Your task to perform on an android device: delete browsing data in the chrome app Image 0: 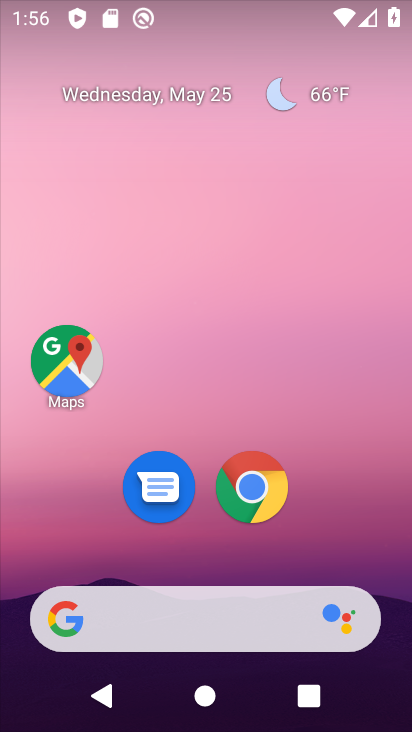
Step 0: click (250, 499)
Your task to perform on an android device: delete browsing data in the chrome app Image 1: 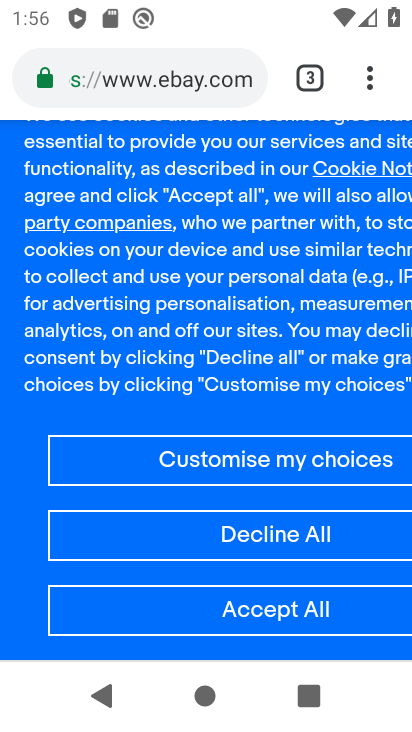
Step 1: click (374, 80)
Your task to perform on an android device: delete browsing data in the chrome app Image 2: 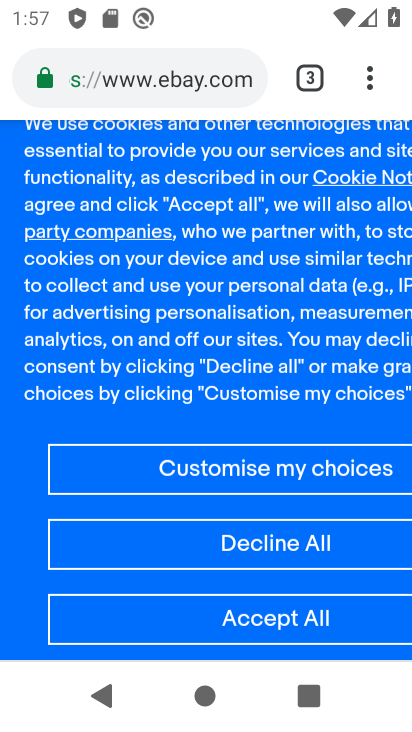
Step 2: click (373, 84)
Your task to perform on an android device: delete browsing data in the chrome app Image 3: 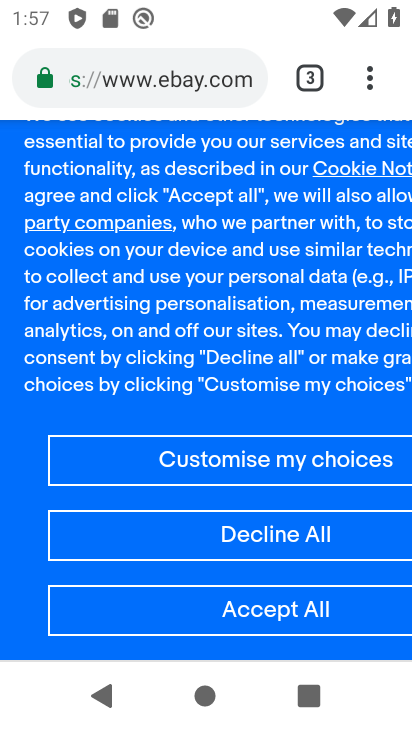
Step 3: click (367, 82)
Your task to perform on an android device: delete browsing data in the chrome app Image 4: 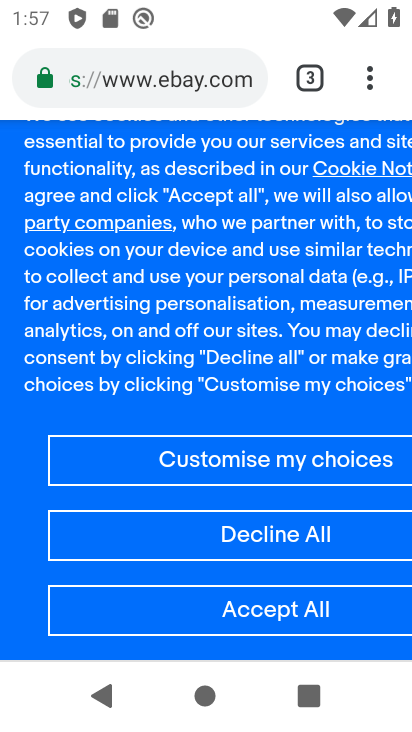
Step 4: click (367, 82)
Your task to perform on an android device: delete browsing data in the chrome app Image 5: 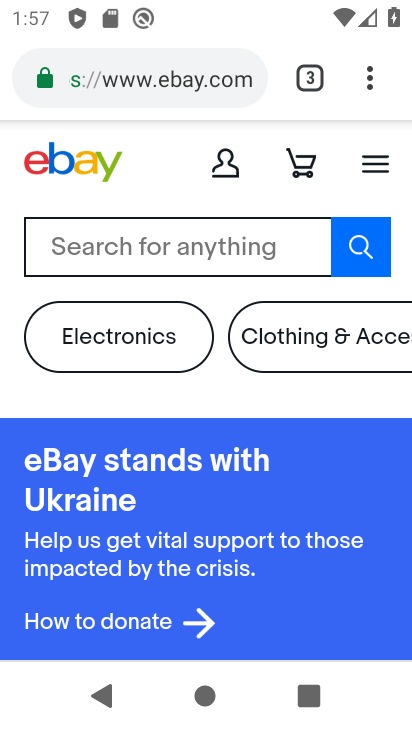
Step 5: click (369, 76)
Your task to perform on an android device: delete browsing data in the chrome app Image 6: 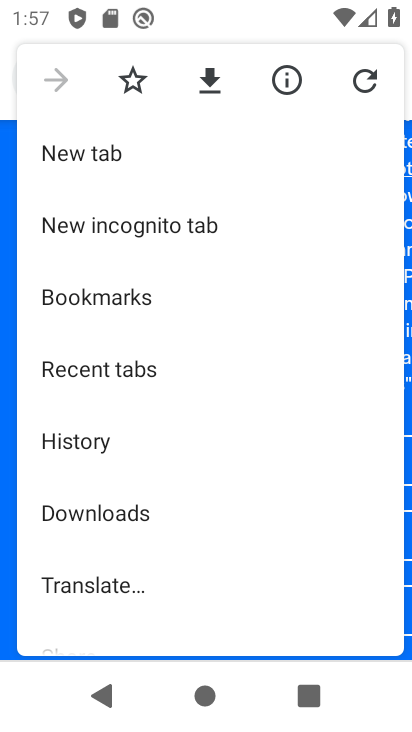
Step 6: drag from (177, 605) to (173, 160)
Your task to perform on an android device: delete browsing data in the chrome app Image 7: 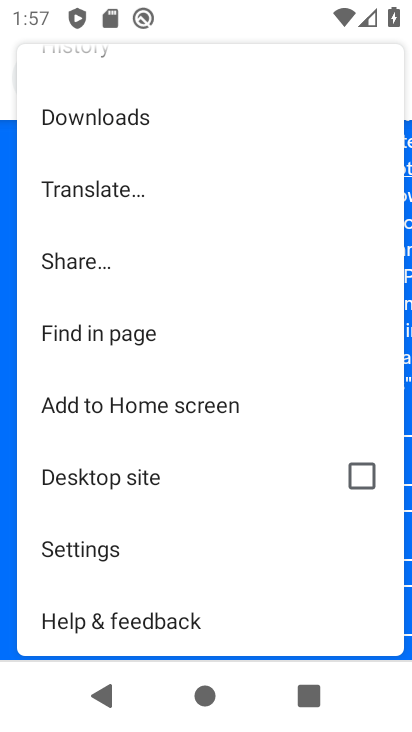
Step 7: drag from (180, 181) to (77, 530)
Your task to perform on an android device: delete browsing data in the chrome app Image 8: 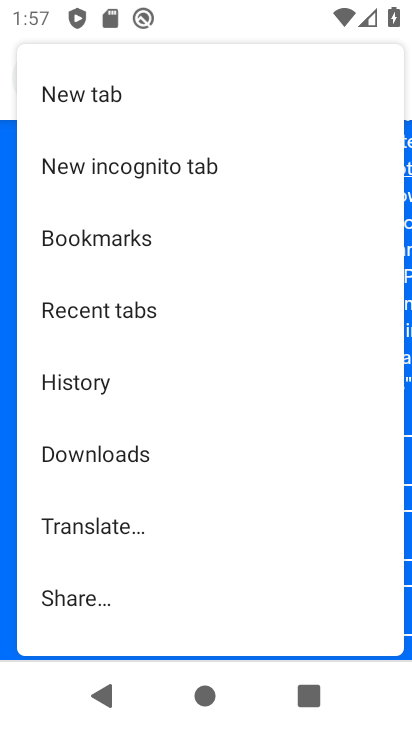
Step 8: click (103, 390)
Your task to perform on an android device: delete browsing data in the chrome app Image 9: 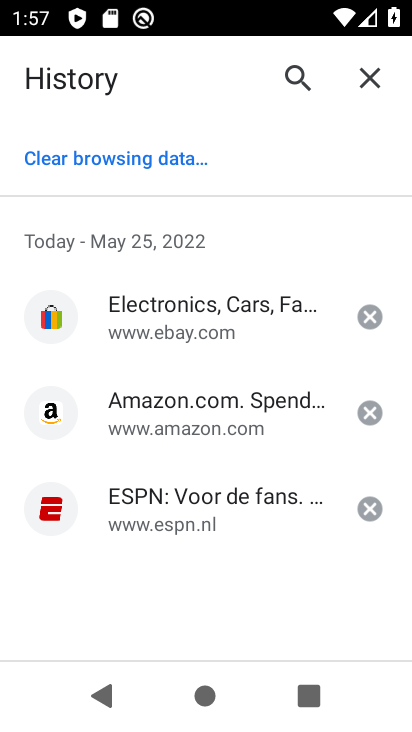
Step 9: click (138, 157)
Your task to perform on an android device: delete browsing data in the chrome app Image 10: 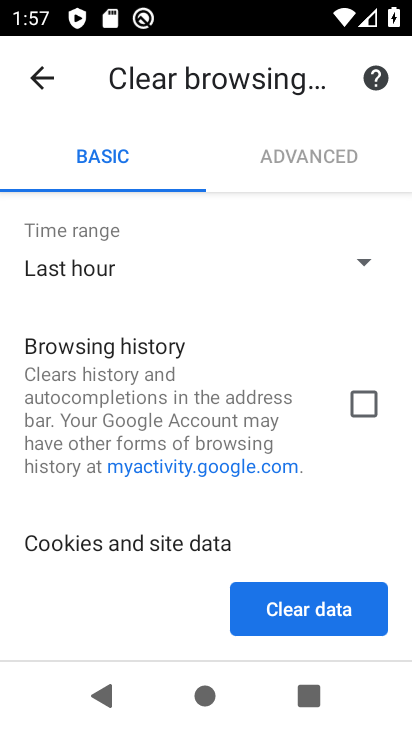
Step 10: click (377, 401)
Your task to perform on an android device: delete browsing data in the chrome app Image 11: 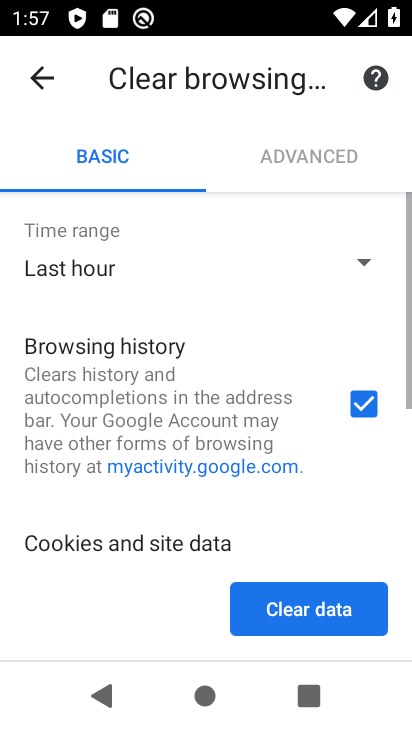
Step 11: drag from (182, 503) to (169, 239)
Your task to perform on an android device: delete browsing data in the chrome app Image 12: 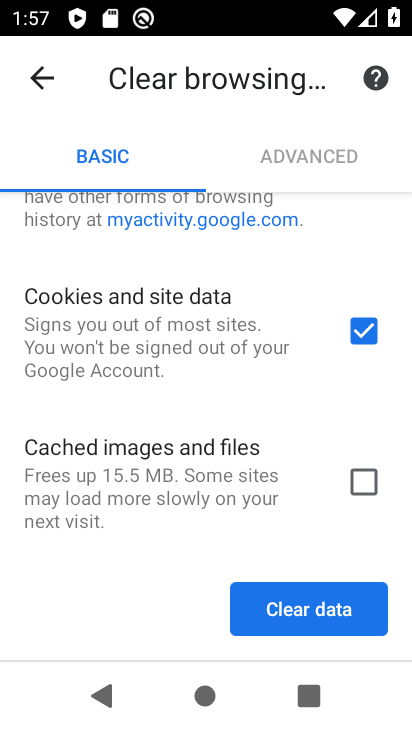
Step 12: click (355, 484)
Your task to perform on an android device: delete browsing data in the chrome app Image 13: 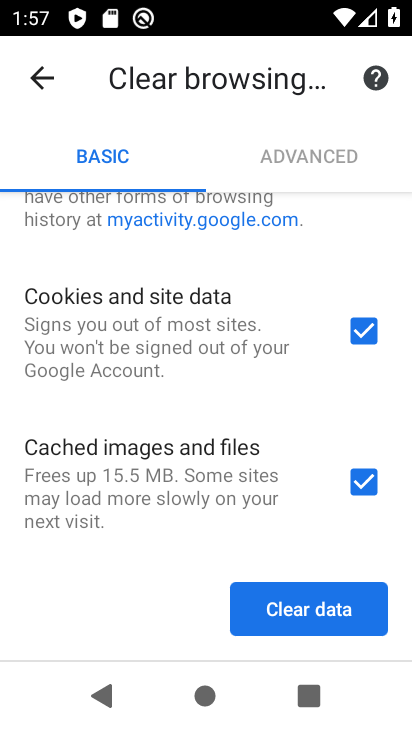
Step 13: click (316, 610)
Your task to perform on an android device: delete browsing data in the chrome app Image 14: 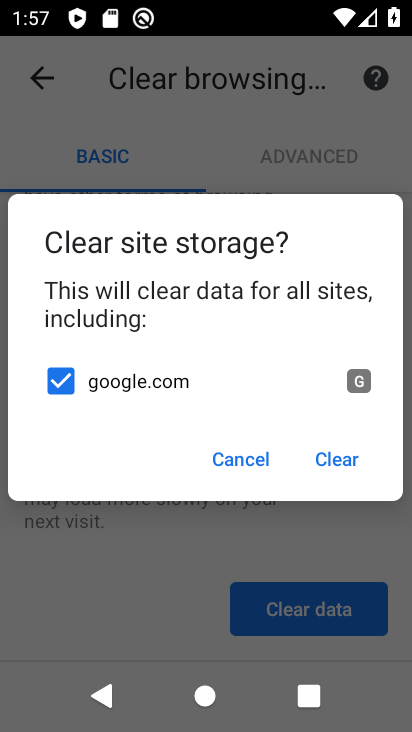
Step 14: click (329, 453)
Your task to perform on an android device: delete browsing data in the chrome app Image 15: 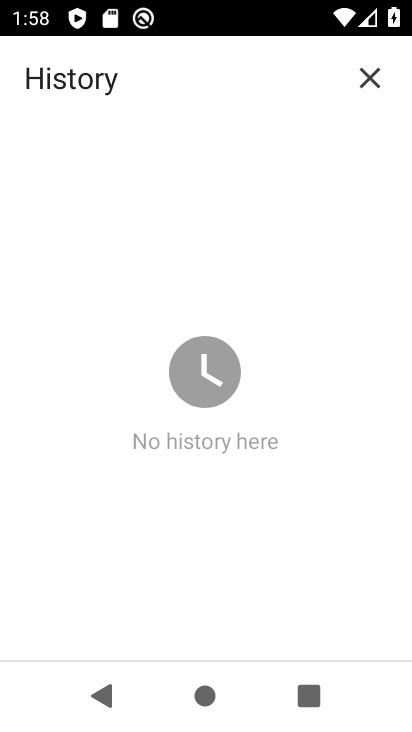
Step 15: task complete